Your task to perform on an android device: find photos in the google photos app Image 0: 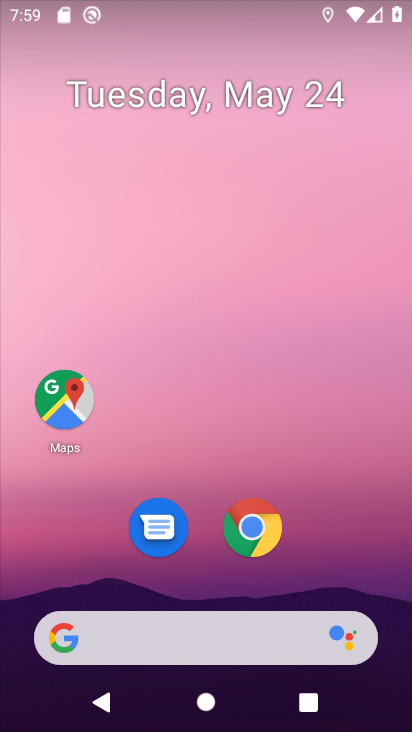
Step 0: drag from (365, 563) to (366, 215)
Your task to perform on an android device: find photos in the google photos app Image 1: 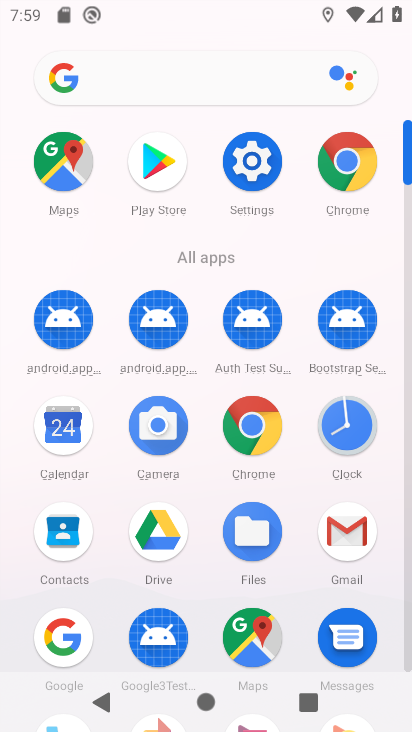
Step 1: drag from (203, 556) to (240, 371)
Your task to perform on an android device: find photos in the google photos app Image 2: 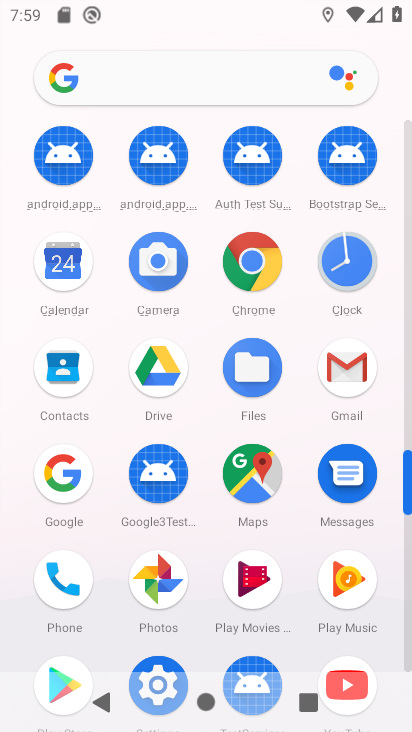
Step 2: click (170, 589)
Your task to perform on an android device: find photos in the google photos app Image 3: 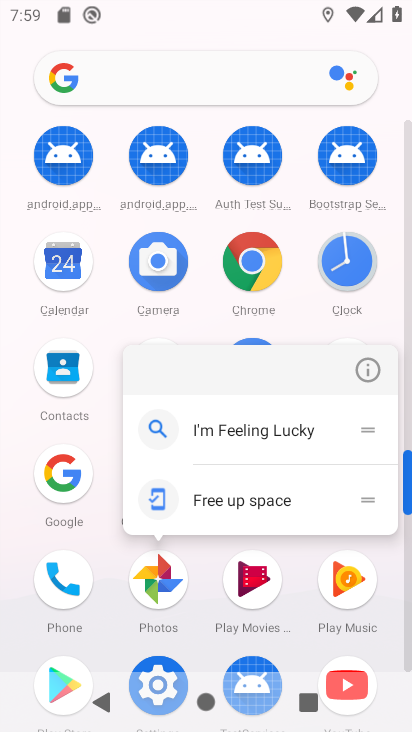
Step 3: click (169, 588)
Your task to perform on an android device: find photos in the google photos app Image 4: 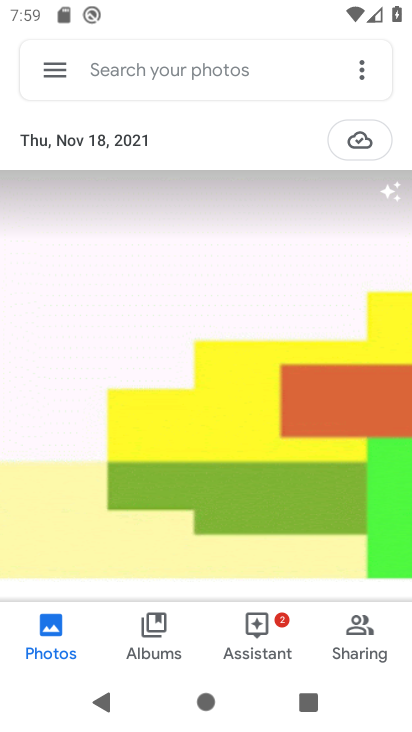
Step 4: task complete